Your task to perform on an android device: turn off sleep mode Image 0: 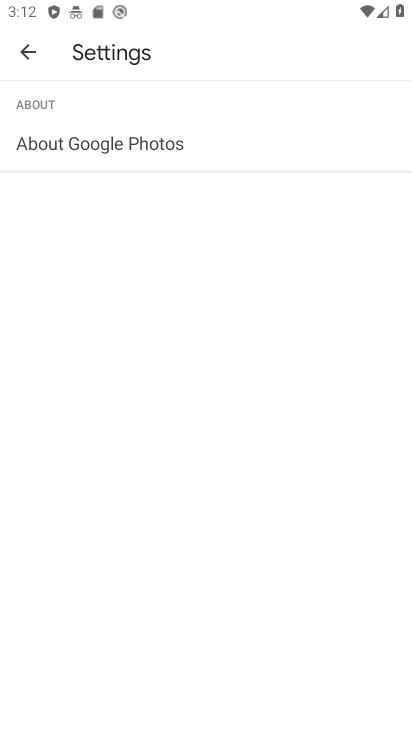
Step 0: press home button
Your task to perform on an android device: turn off sleep mode Image 1: 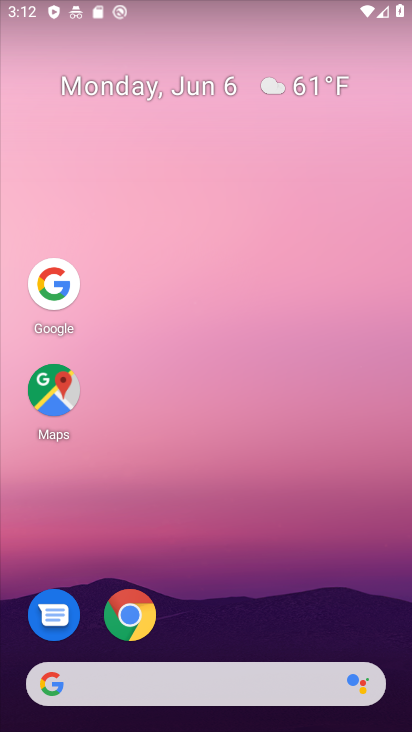
Step 1: drag from (177, 621) to (200, 145)
Your task to perform on an android device: turn off sleep mode Image 2: 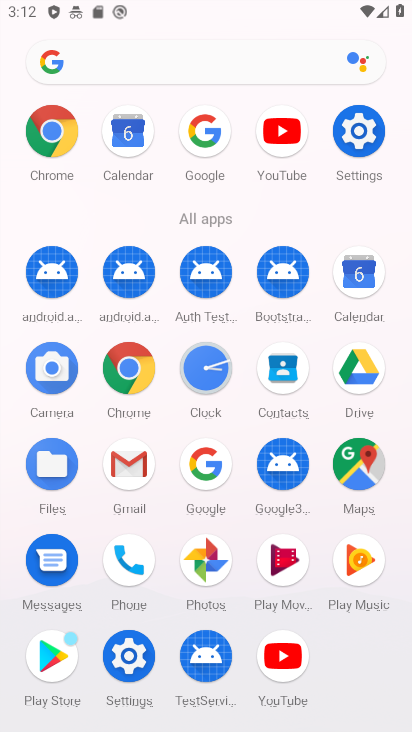
Step 2: click (362, 133)
Your task to perform on an android device: turn off sleep mode Image 3: 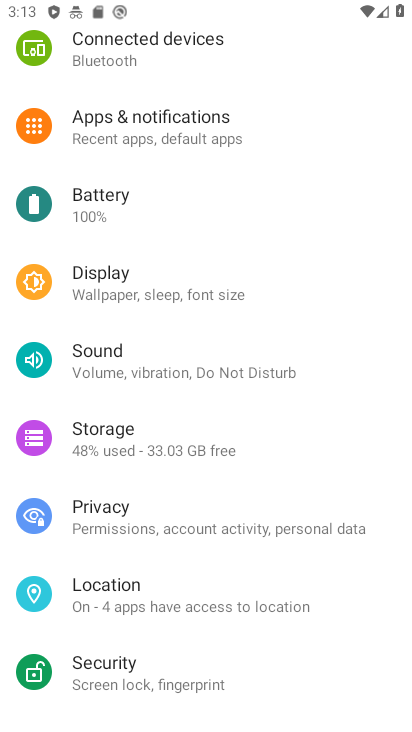
Step 3: click (260, 279)
Your task to perform on an android device: turn off sleep mode Image 4: 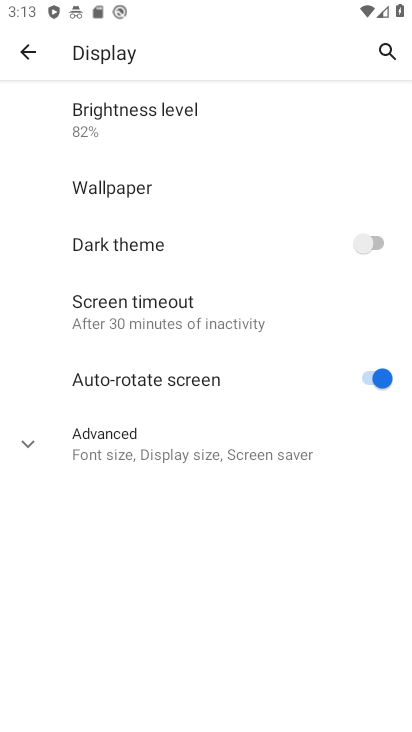
Step 4: click (247, 306)
Your task to perform on an android device: turn off sleep mode Image 5: 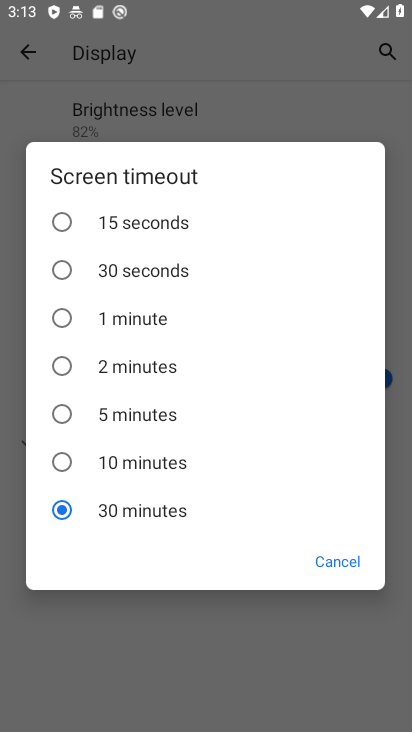
Step 5: task complete